Your task to perform on an android device: create a new album in the google photos Image 0: 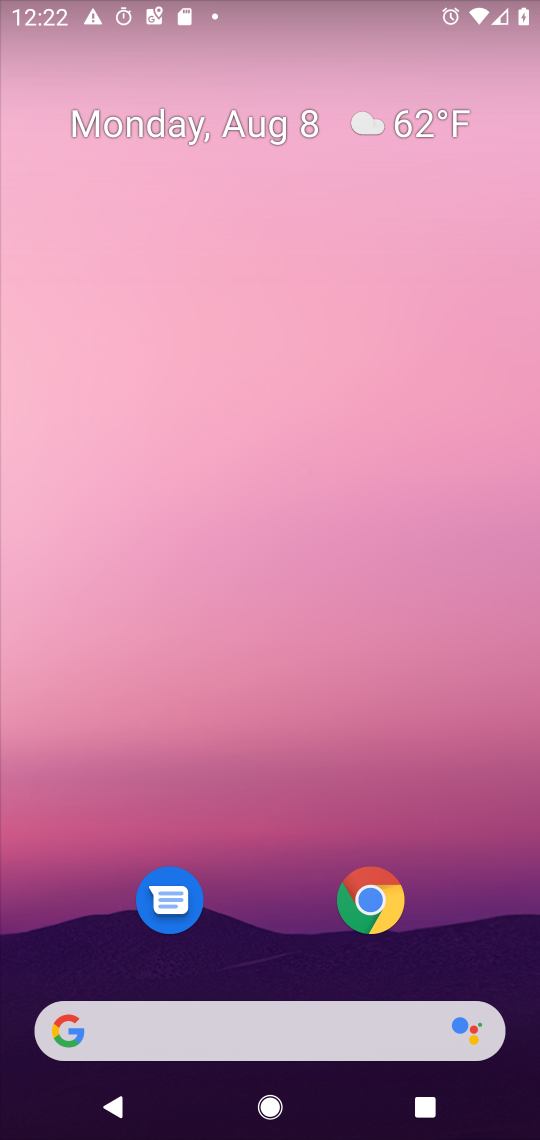
Step 0: drag from (279, 964) to (302, 48)
Your task to perform on an android device: create a new album in the google photos Image 1: 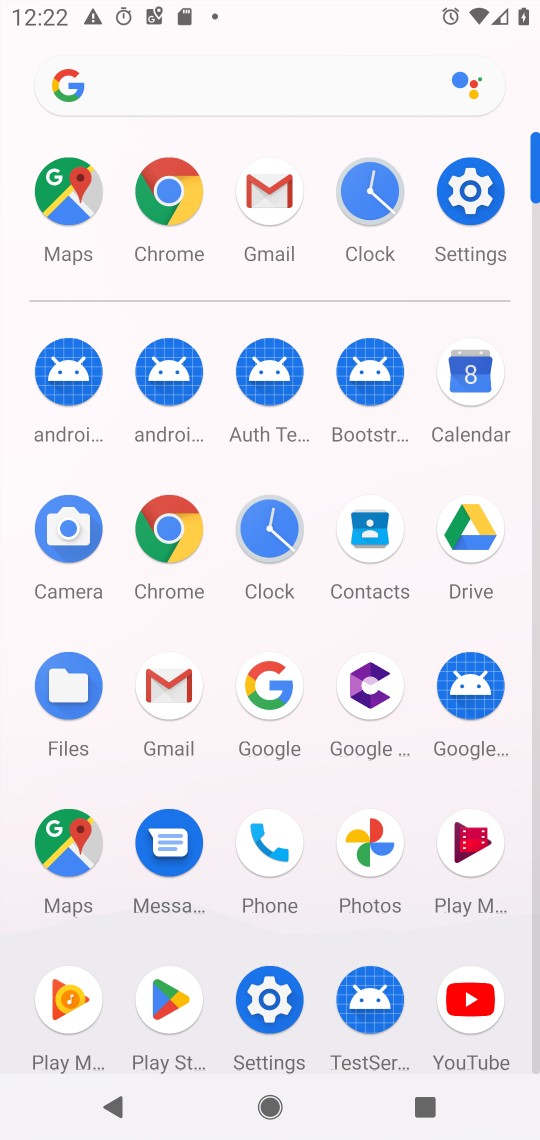
Step 1: click (368, 837)
Your task to perform on an android device: create a new album in the google photos Image 2: 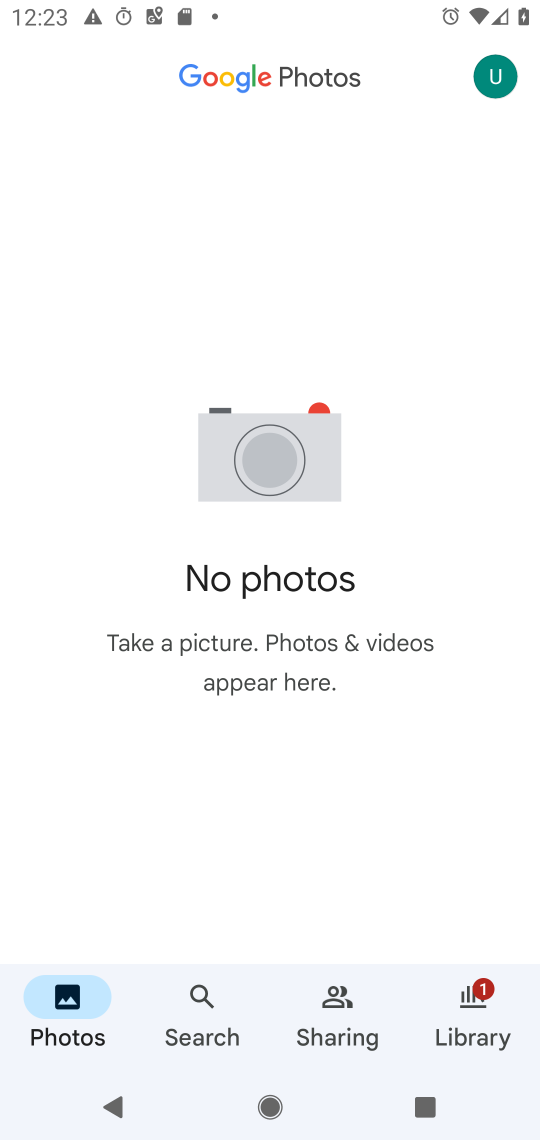
Step 2: click (339, 1006)
Your task to perform on an android device: create a new album in the google photos Image 3: 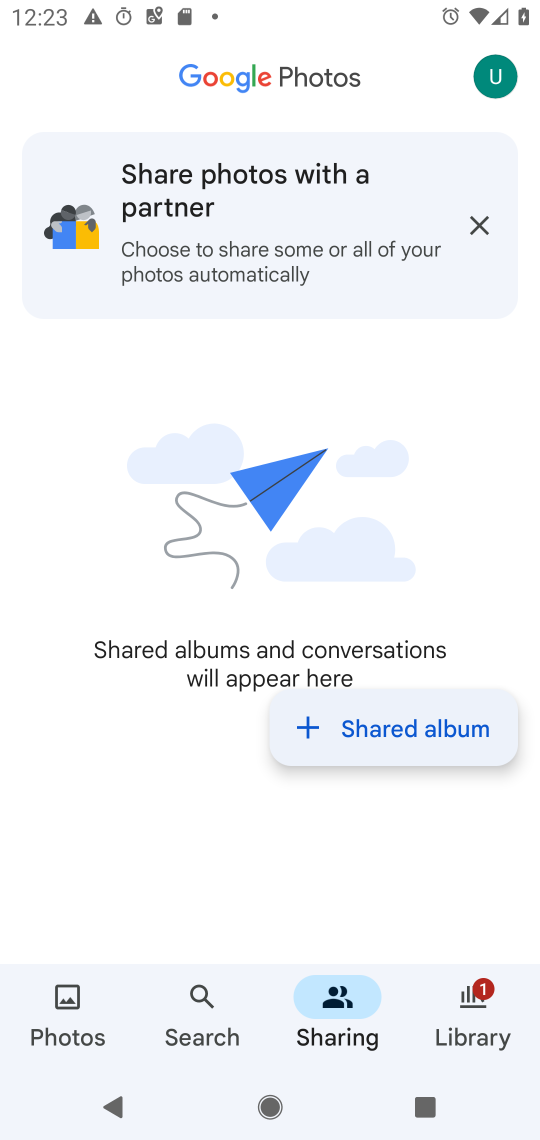
Step 3: click (306, 724)
Your task to perform on an android device: create a new album in the google photos Image 4: 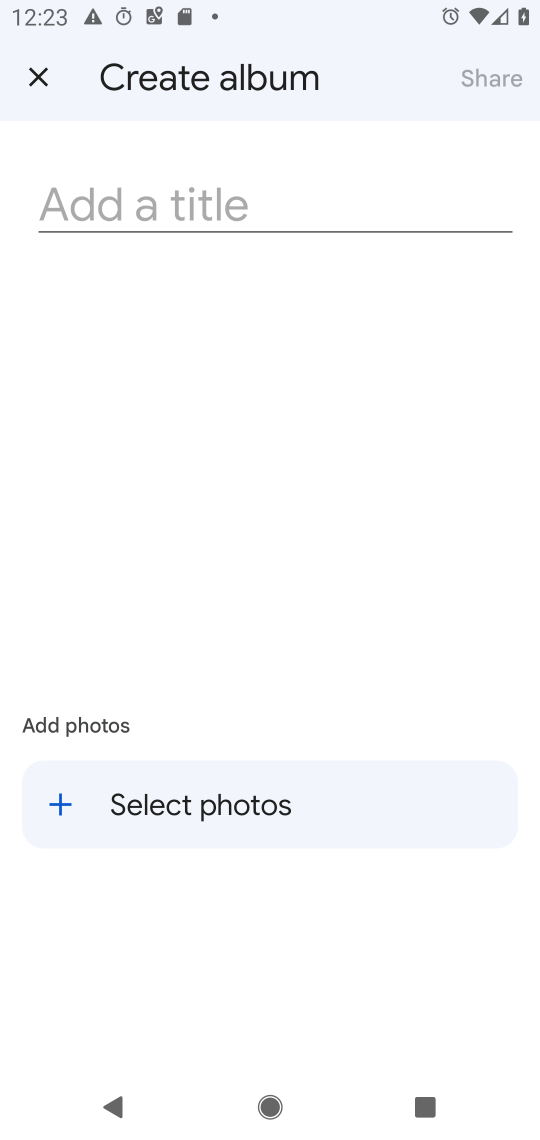
Step 4: task complete